Your task to perform on an android device: add a label to a message in the gmail app Image 0: 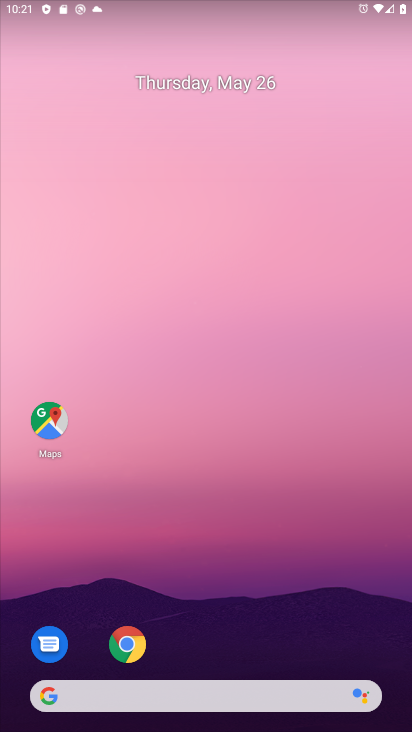
Step 0: drag from (230, 607) to (211, 284)
Your task to perform on an android device: add a label to a message in the gmail app Image 1: 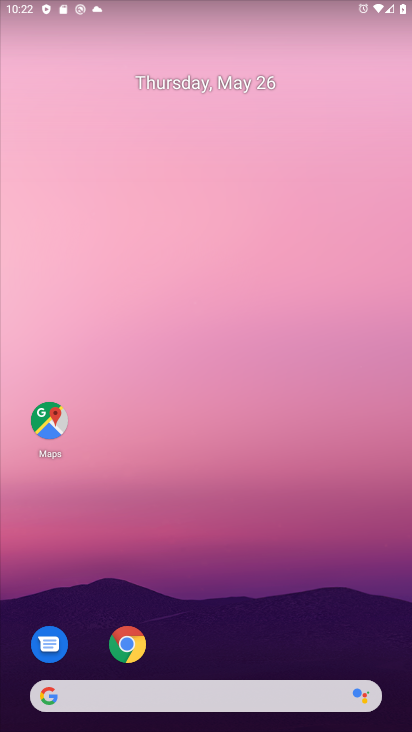
Step 1: drag from (225, 644) to (201, 283)
Your task to perform on an android device: add a label to a message in the gmail app Image 2: 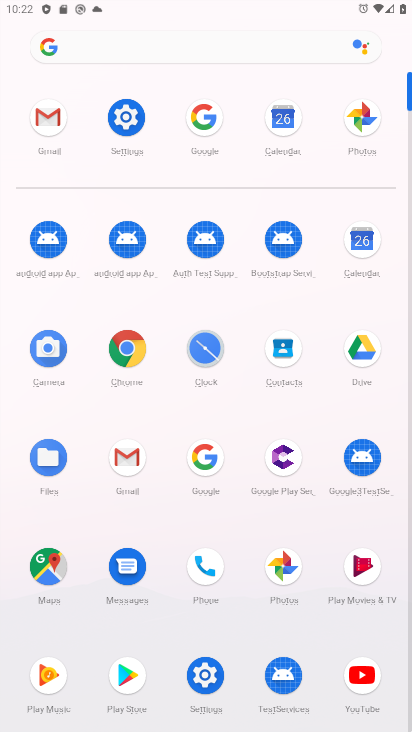
Step 2: click (38, 132)
Your task to perform on an android device: add a label to a message in the gmail app Image 3: 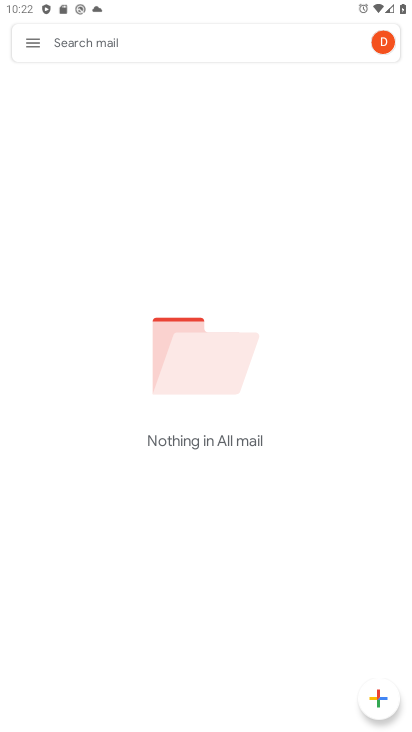
Step 3: click (34, 48)
Your task to perform on an android device: add a label to a message in the gmail app Image 4: 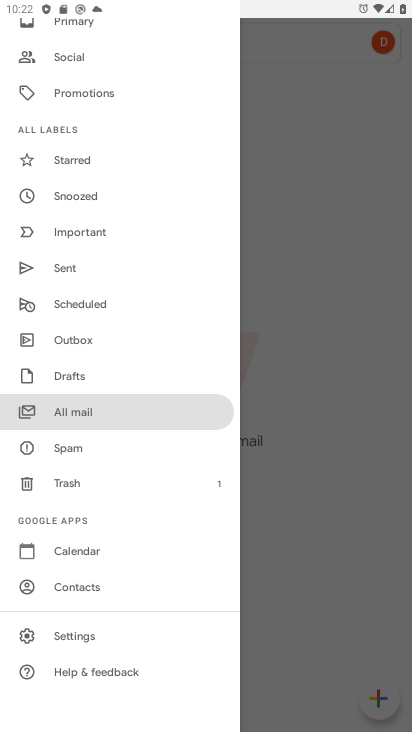
Step 4: drag from (101, 123) to (101, 347)
Your task to perform on an android device: add a label to a message in the gmail app Image 5: 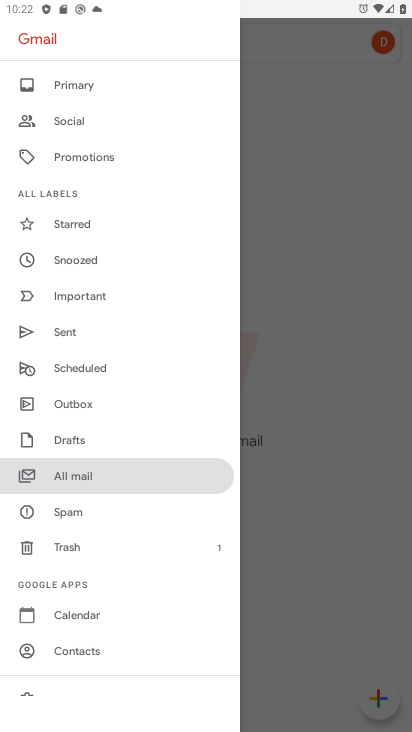
Step 5: click (84, 91)
Your task to perform on an android device: add a label to a message in the gmail app Image 6: 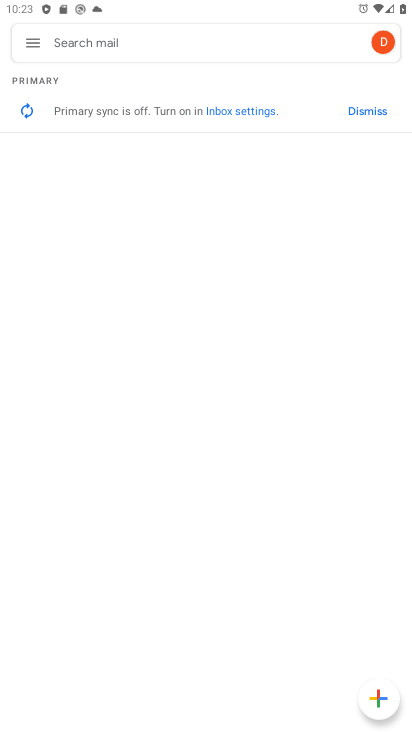
Step 6: task complete